Your task to perform on an android device: toggle data saver in the chrome app Image 0: 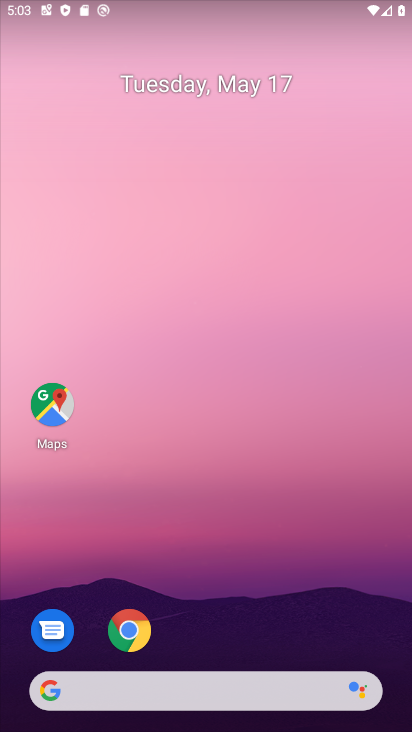
Step 0: click (122, 626)
Your task to perform on an android device: toggle data saver in the chrome app Image 1: 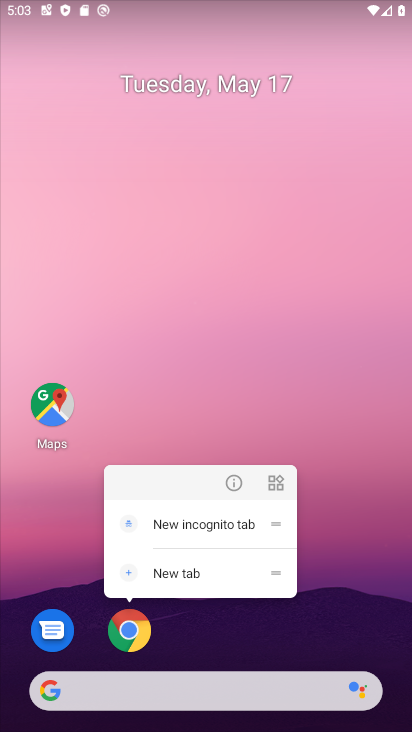
Step 1: click (132, 621)
Your task to perform on an android device: toggle data saver in the chrome app Image 2: 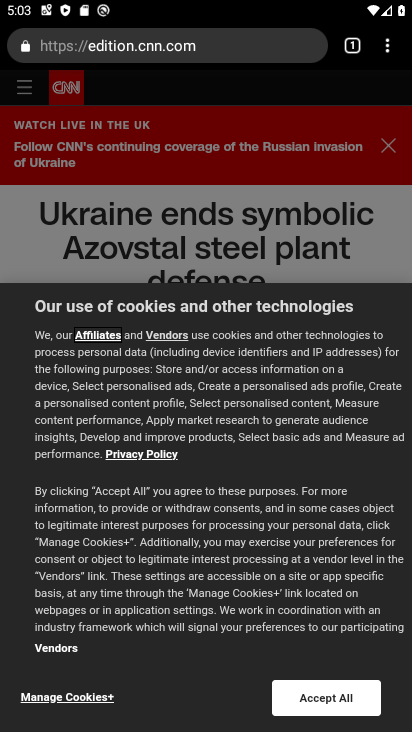
Step 2: drag from (390, 41) to (242, 514)
Your task to perform on an android device: toggle data saver in the chrome app Image 3: 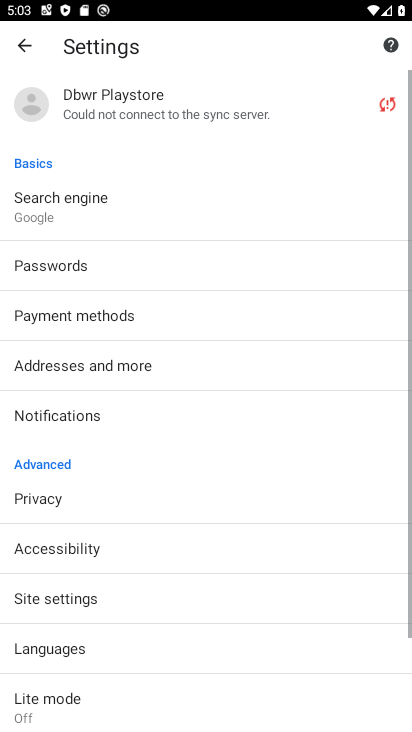
Step 3: drag from (224, 519) to (293, 131)
Your task to perform on an android device: toggle data saver in the chrome app Image 4: 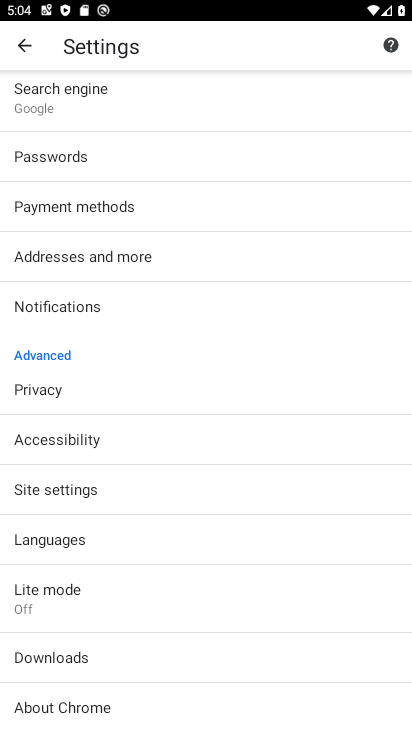
Step 4: click (58, 582)
Your task to perform on an android device: toggle data saver in the chrome app Image 5: 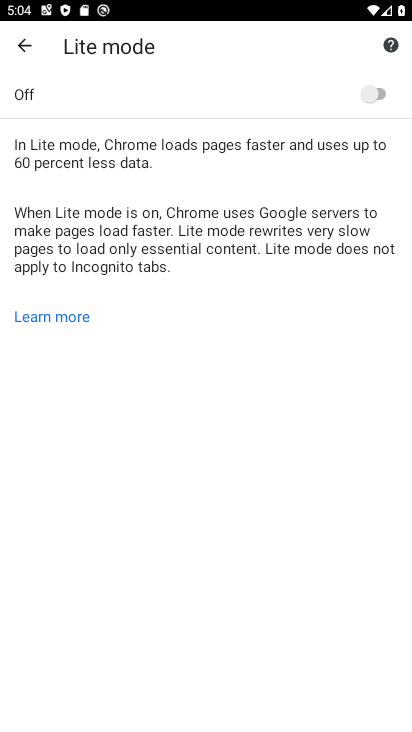
Step 5: click (383, 84)
Your task to perform on an android device: toggle data saver in the chrome app Image 6: 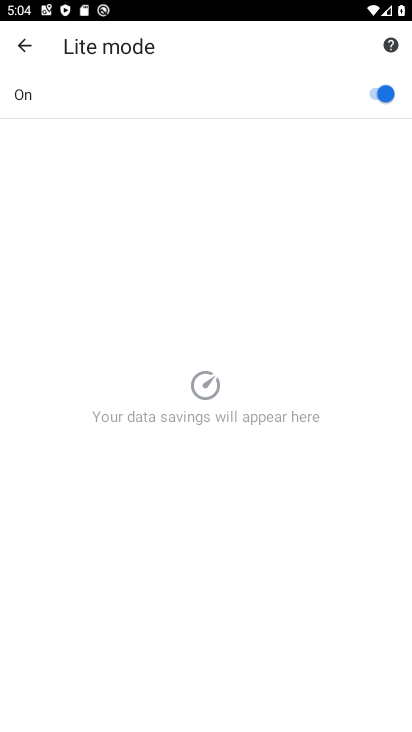
Step 6: task complete